Your task to perform on an android device: manage bookmarks in the chrome app Image 0: 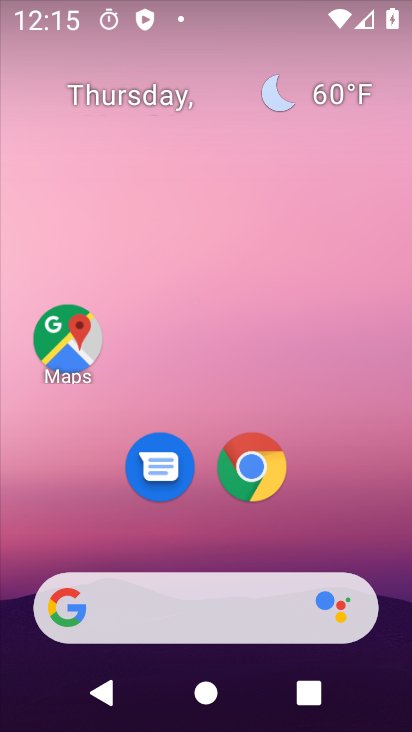
Step 0: click (265, 466)
Your task to perform on an android device: manage bookmarks in the chrome app Image 1: 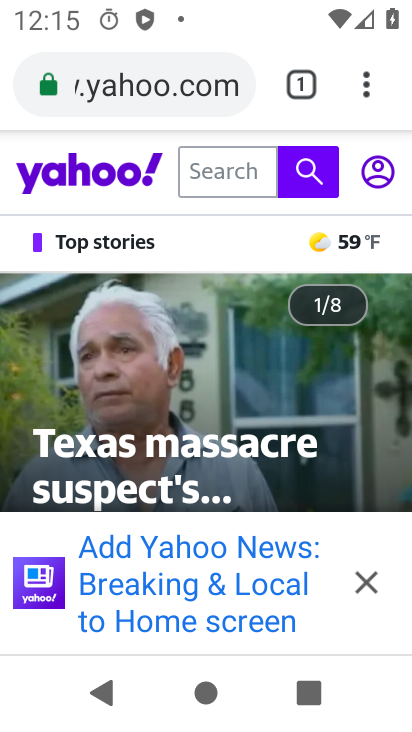
Step 1: click (250, 464)
Your task to perform on an android device: manage bookmarks in the chrome app Image 2: 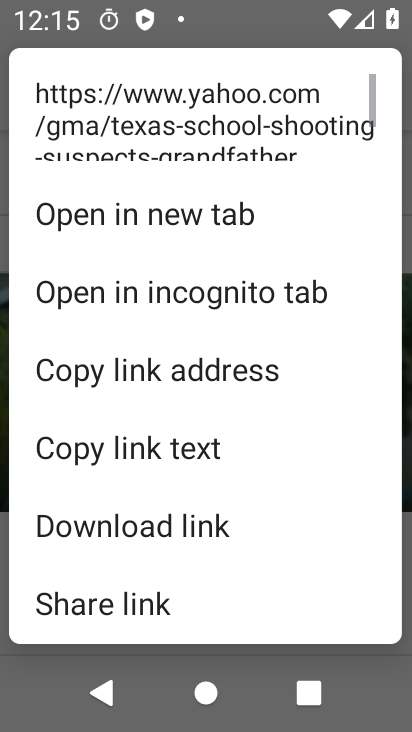
Step 2: click (379, 100)
Your task to perform on an android device: manage bookmarks in the chrome app Image 3: 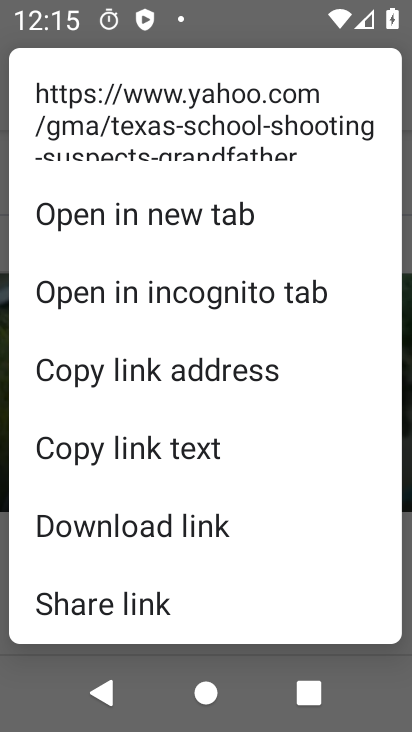
Step 3: press back button
Your task to perform on an android device: manage bookmarks in the chrome app Image 4: 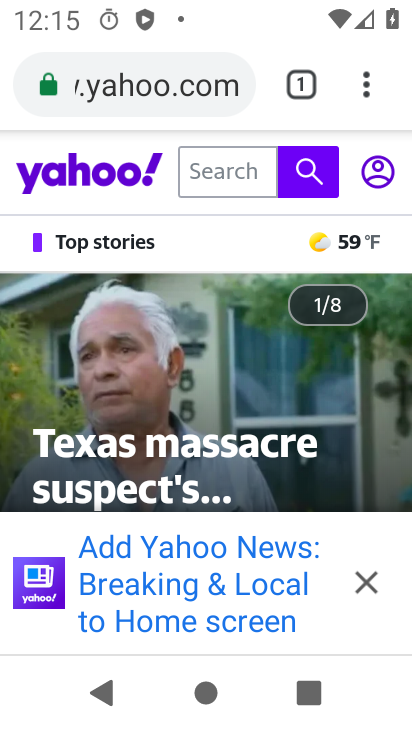
Step 4: click (366, 74)
Your task to perform on an android device: manage bookmarks in the chrome app Image 5: 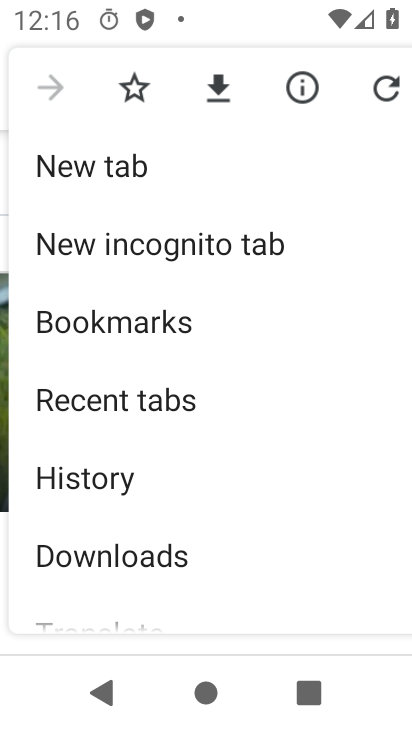
Step 5: click (143, 321)
Your task to perform on an android device: manage bookmarks in the chrome app Image 6: 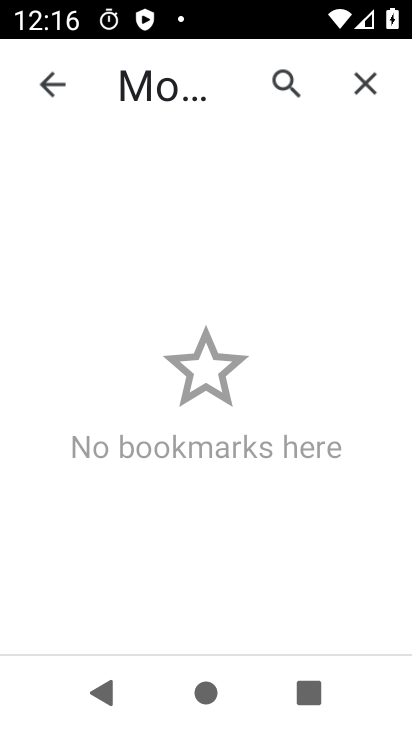
Step 6: task complete